Your task to perform on an android device: Go to battery settings Image 0: 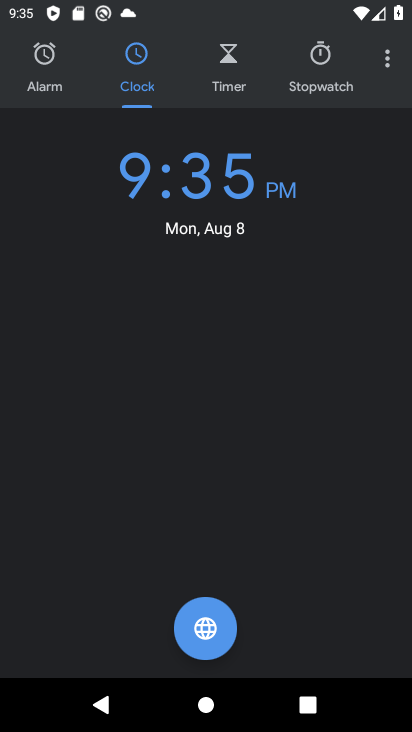
Step 0: press home button
Your task to perform on an android device: Go to battery settings Image 1: 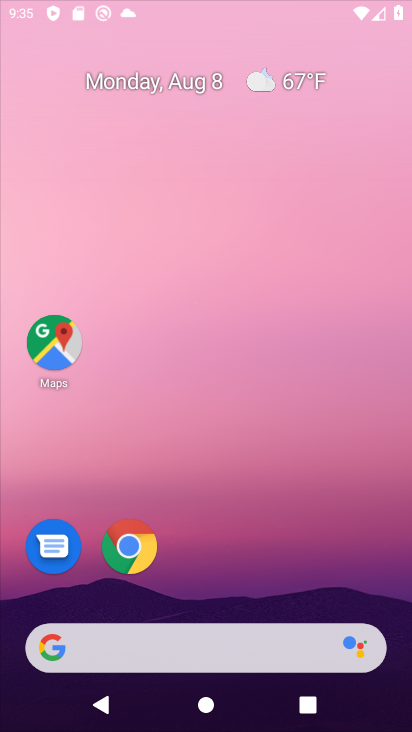
Step 1: press home button
Your task to perform on an android device: Go to battery settings Image 2: 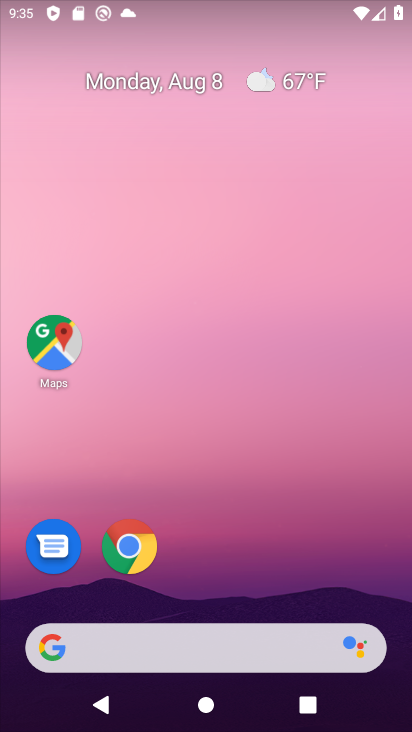
Step 2: drag from (249, 546) to (368, 164)
Your task to perform on an android device: Go to battery settings Image 3: 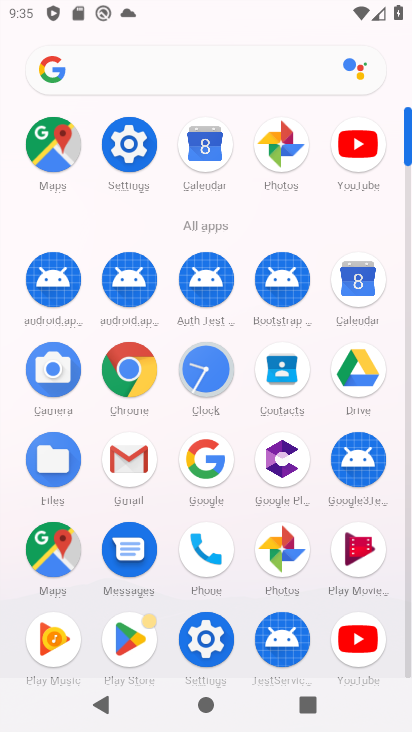
Step 3: click (204, 634)
Your task to perform on an android device: Go to battery settings Image 4: 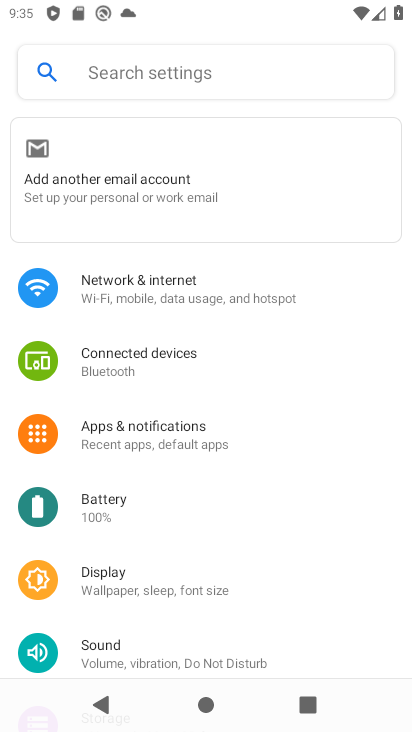
Step 4: click (102, 506)
Your task to perform on an android device: Go to battery settings Image 5: 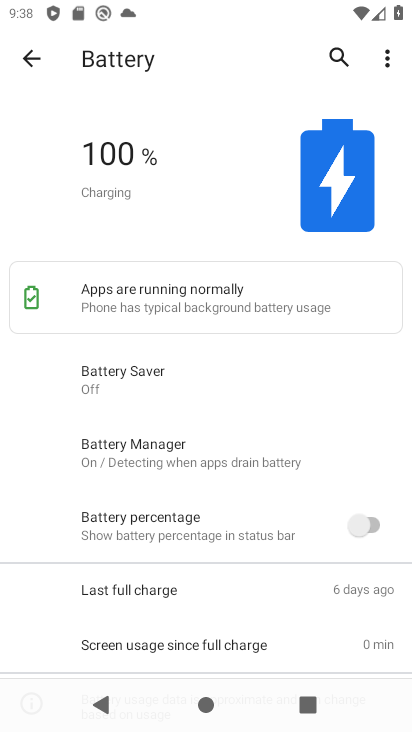
Step 5: task complete